Your task to perform on an android device: turn on javascript in the chrome app Image 0: 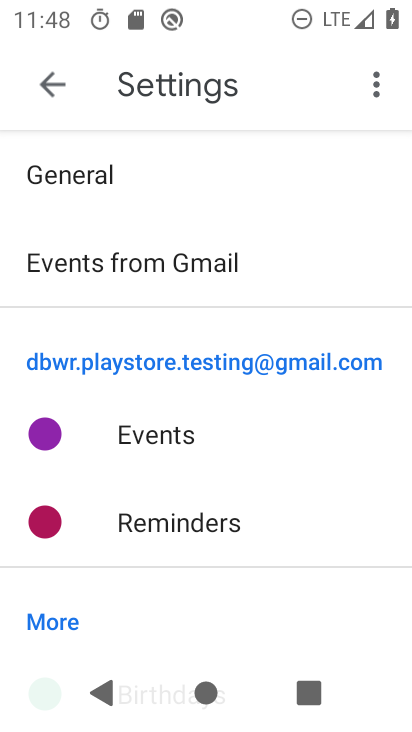
Step 0: press home button
Your task to perform on an android device: turn on javascript in the chrome app Image 1: 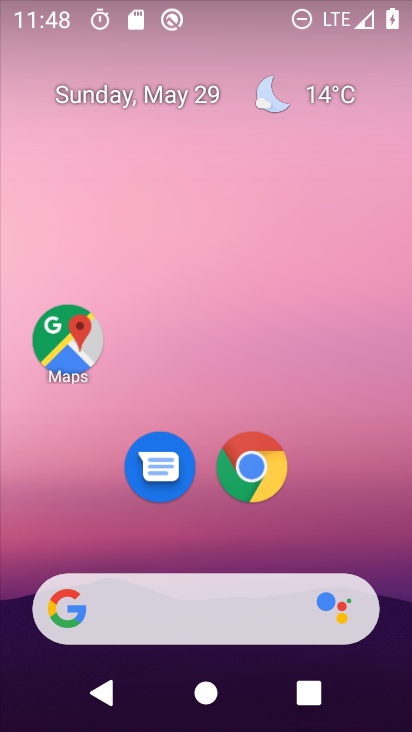
Step 1: click (247, 477)
Your task to perform on an android device: turn on javascript in the chrome app Image 2: 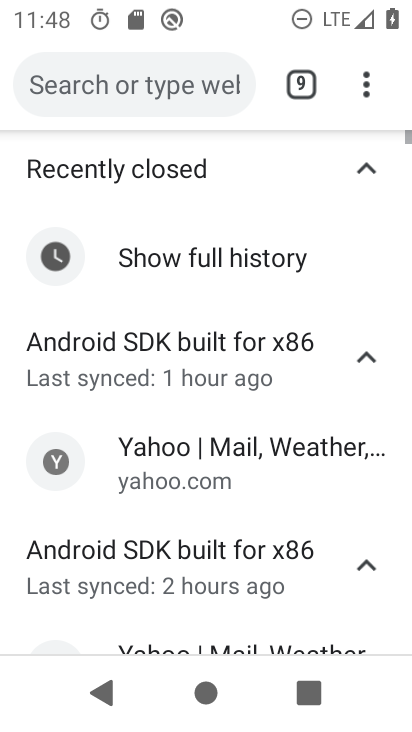
Step 2: drag from (357, 75) to (86, 525)
Your task to perform on an android device: turn on javascript in the chrome app Image 3: 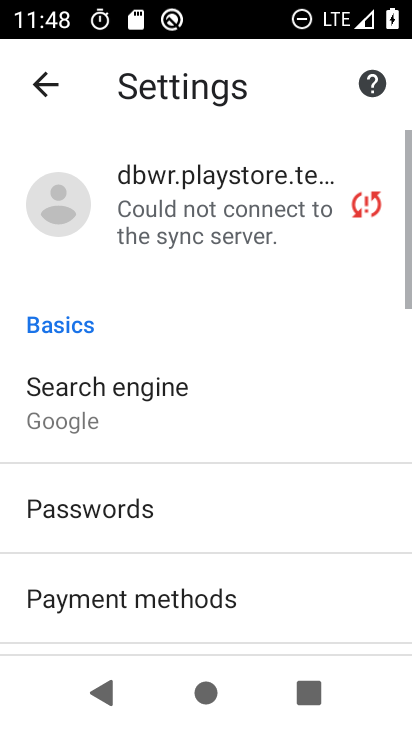
Step 3: drag from (133, 547) to (141, 218)
Your task to perform on an android device: turn on javascript in the chrome app Image 4: 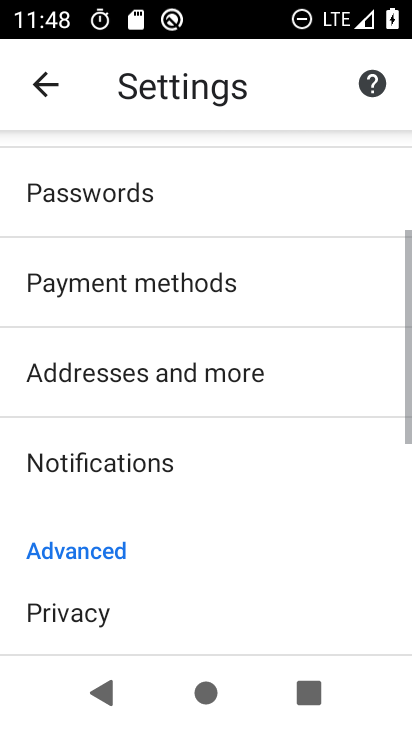
Step 4: drag from (192, 561) to (190, 254)
Your task to perform on an android device: turn on javascript in the chrome app Image 5: 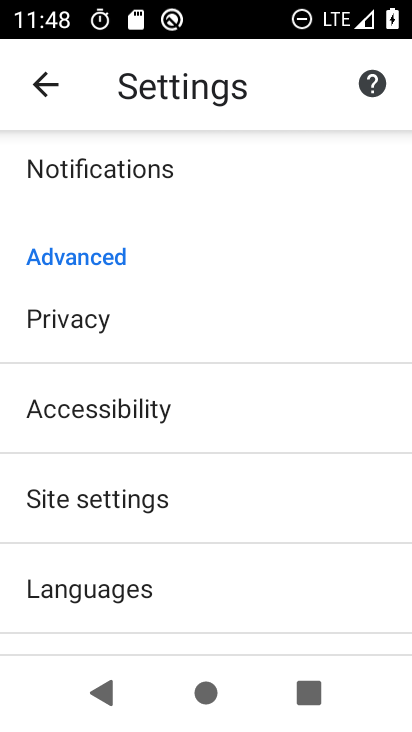
Step 5: drag from (176, 560) to (179, 312)
Your task to perform on an android device: turn on javascript in the chrome app Image 6: 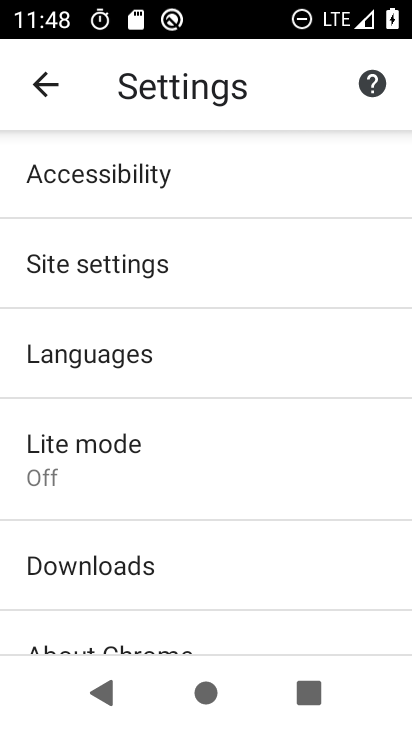
Step 6: click (182, 263)
Your task to perform on an android device: turn on javascript in the chrome app Image 7: 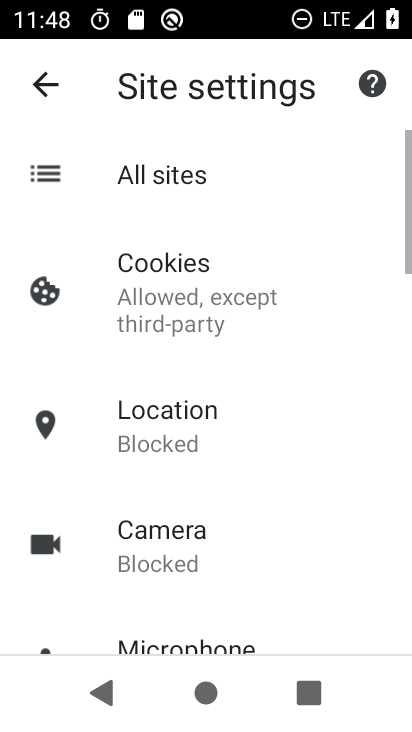
Step 7: drag from (205, 516) to (205, 256)
Your task to perform on an android device: turn on javascript in the chrome app Image 8: 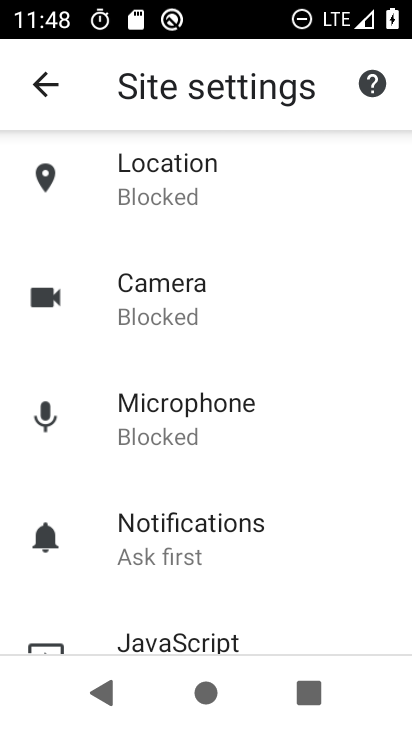
Step 8: drag from (206, 567) to (218, 340)
Your task to perform on an android device: turn on javascript in the chrome app Image 9: 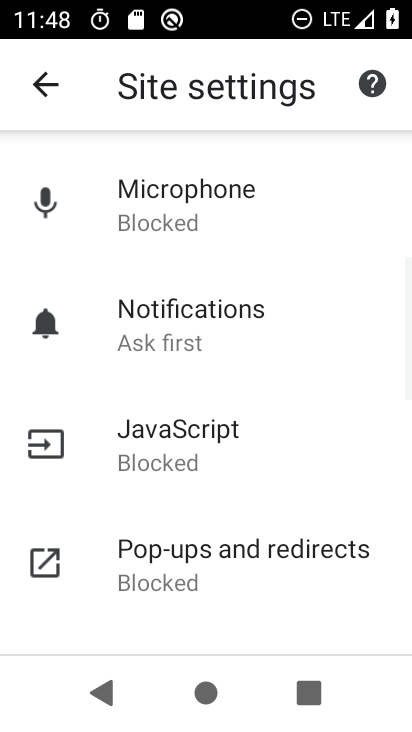
Step 9: click (200, 459)
Your task to perform on an android device: turn on javascript in the chrome app Image 10: 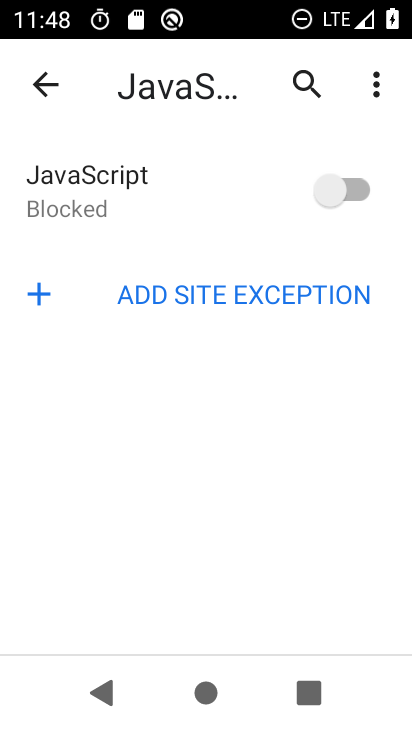
Step 10: click (355, 184)
Your task to perform on an android device: turn on javascript in the chrome app Image 11: 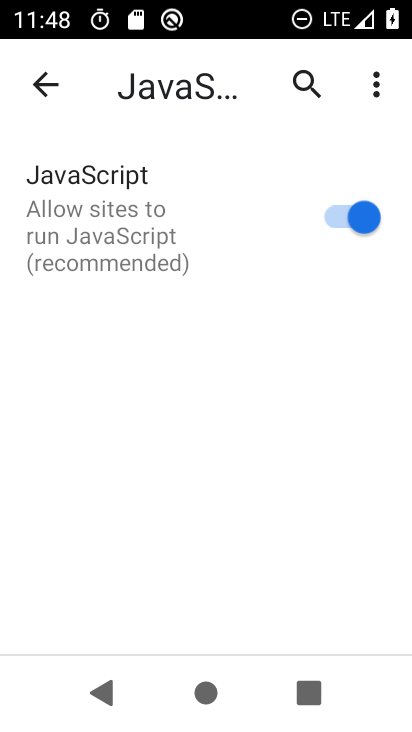
Step 11: task complete